Your task to perform on an android device: toggle airplane mode Image 0: 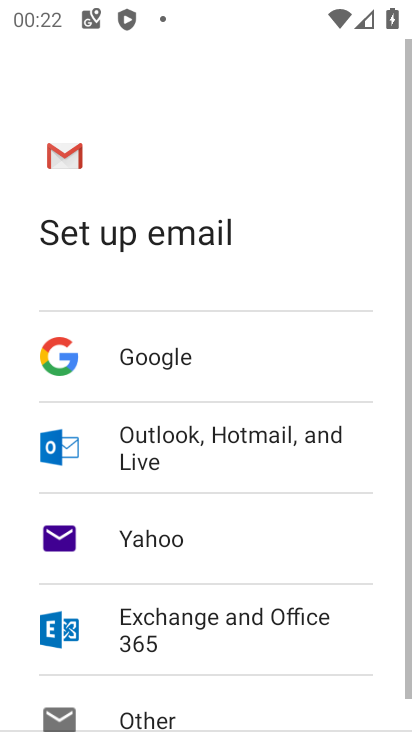
Step 0: press home button
Your task to perform on an android device: toggle airplane mode Image 1: 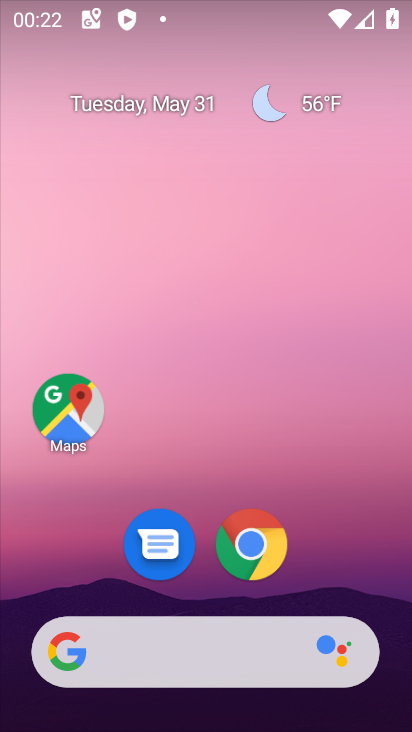
Step 1: drag from (326, 530) to (199, 143)
Your task to perform on an android device: toggle airplane mode Image 2: 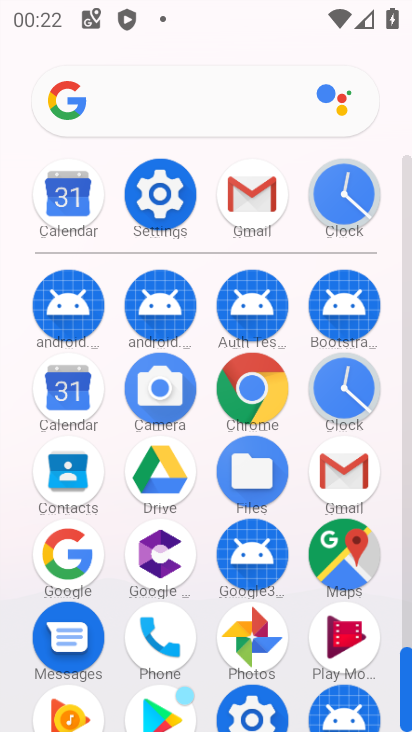
Step 2: click (153, 185)
Your task to perform on an android device: toggle airplane mode Image 3: 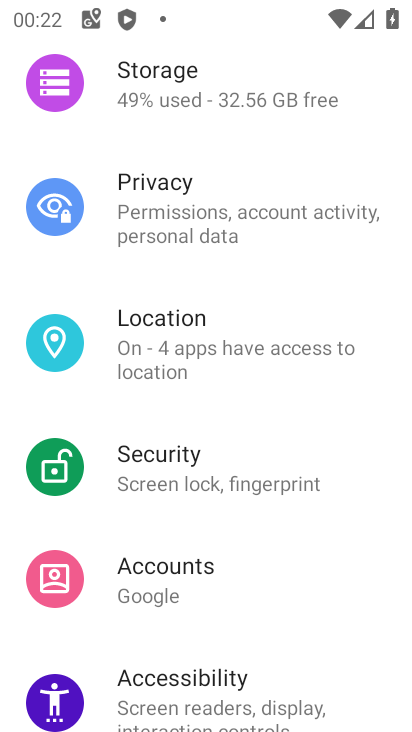
Step 3: drag from (237, 155) to (220, 708)
Your task to perform on an android device: toggle airplane mode Image 4: 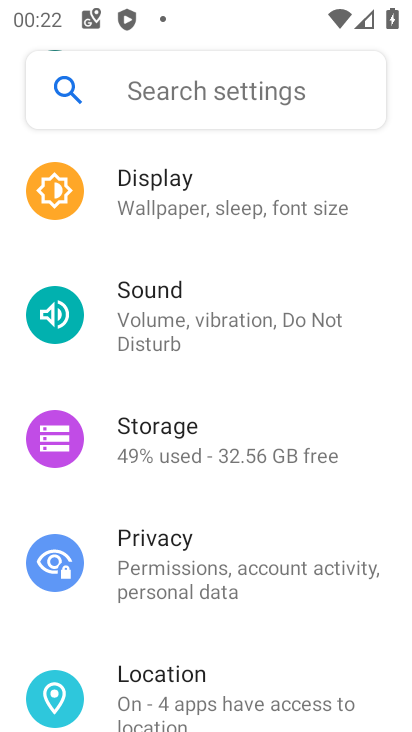
Step 4: drag from (212, 255) to (206, 661)
Your task to perform on an android device: toggle airplane mode Image 5: 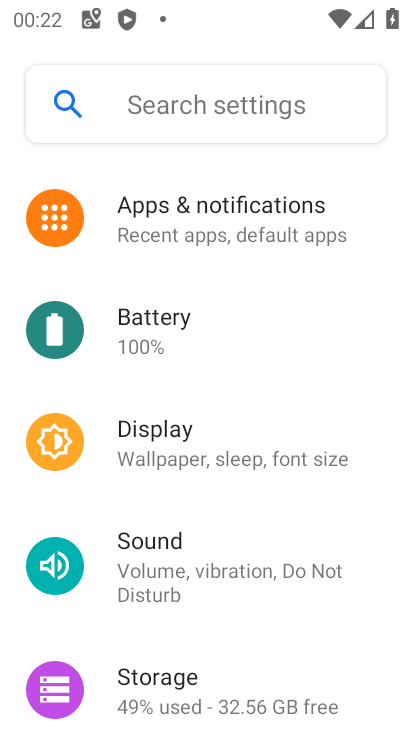
Step 5: drag from (206, 271) to (195, 699)
Your task to perform on an android device: toggle airplane mode Image 6: 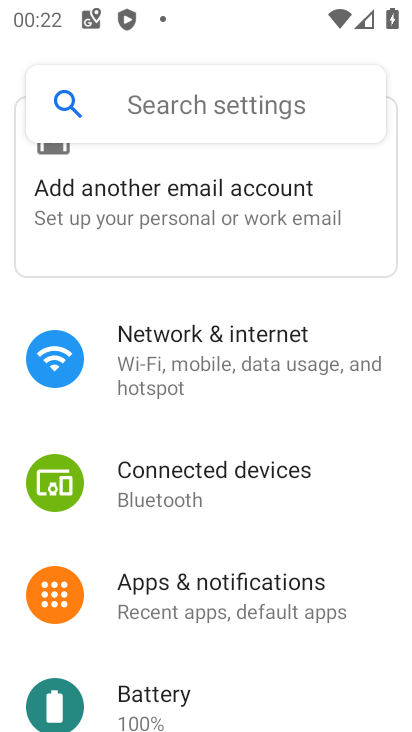
Step 6: drag from (227, 231) to (285, 711)
Your task to perform on an android device: toggle airplane mode Image 7: 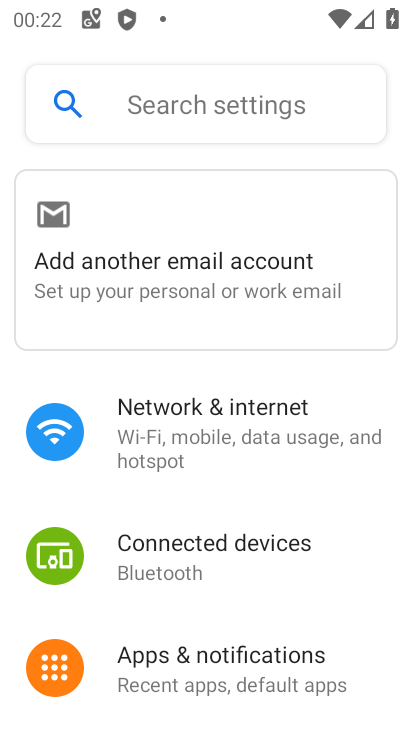
Step 7: click (177, 412)
Your task to perform on an android device: toggle airplane mode Image 8: 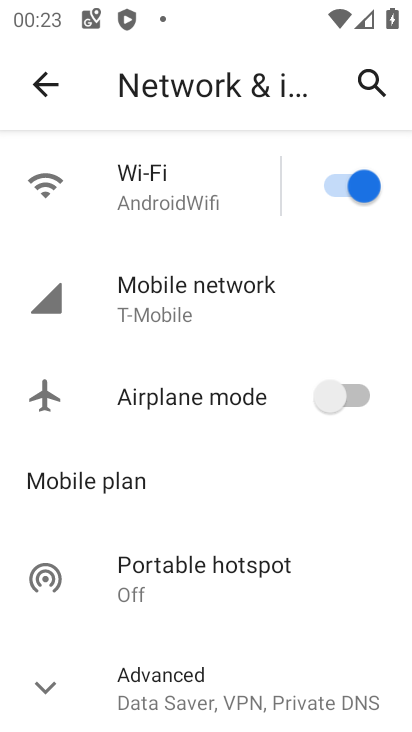
Step 8: click (333, 399)
Your task to perform on an android device: toggle airplane mode Image 9: 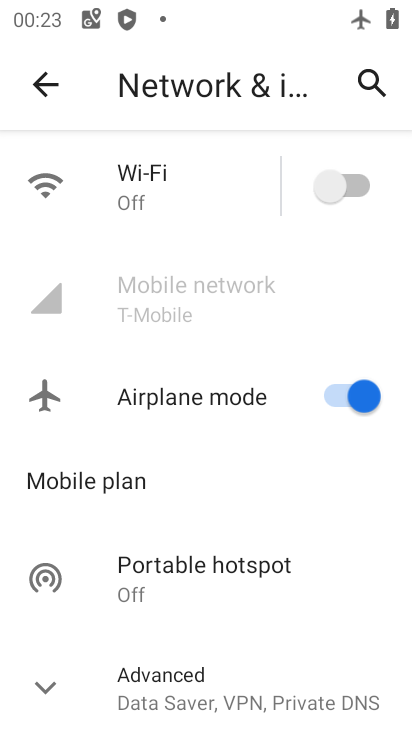
Step 9: task complete